Your task to perform on an android device: open app "Microsoft Outlook" (install if not already installed) Image 0: 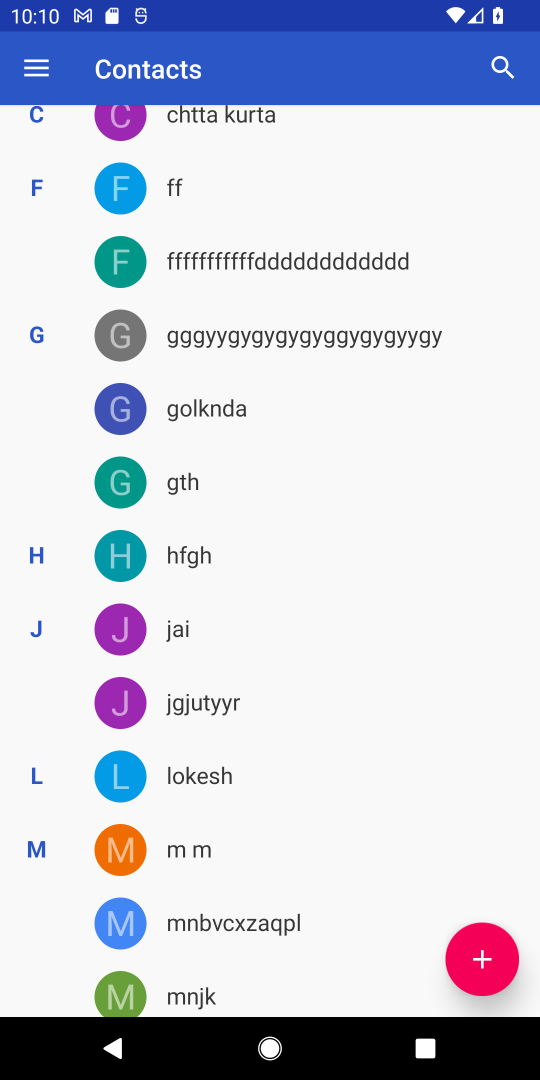
Step 0: press home button
Your task to perform on an android device: open app "Microsoft Outlook" (install if not already installed) Image 1: 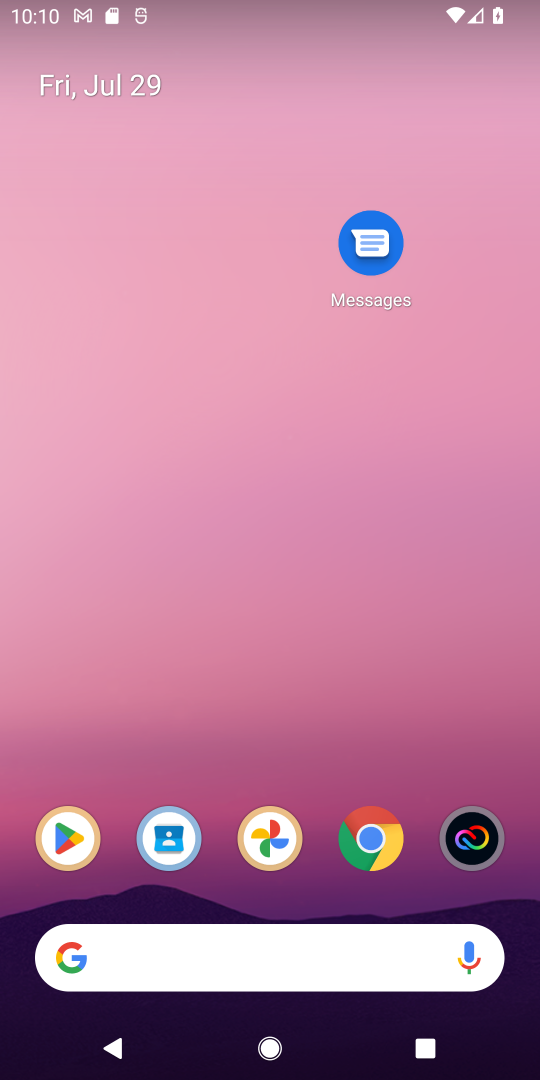
Step 1: click (81, 856)
Your task to perform on an android device: open app "Microsoft Outlook" (install if not already installed) Image 2: 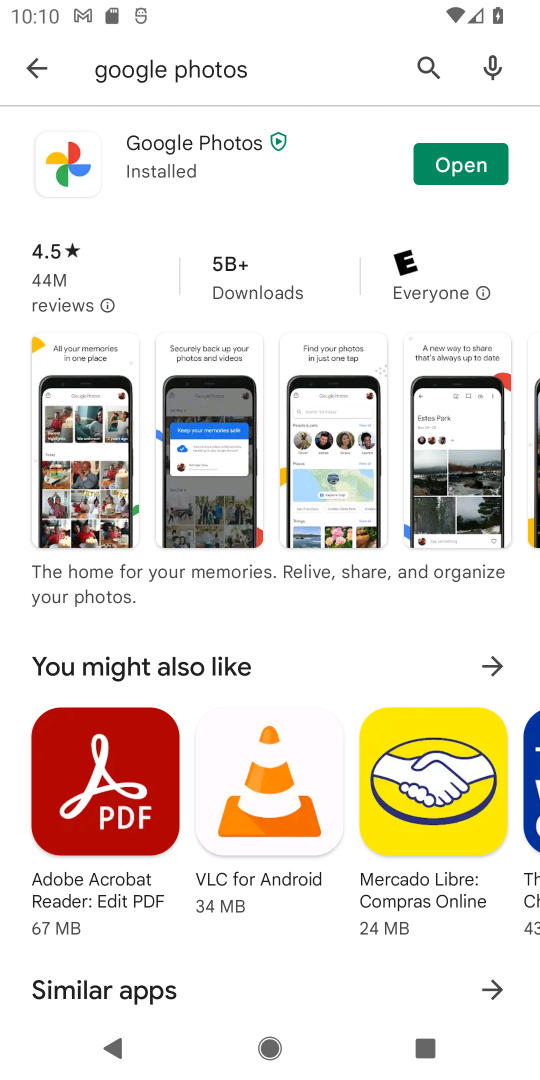
Step 2: click (265, 68)
Your task to perform on an android device: open app "Microsoft Outlook" (install if not already installed) Image 3: 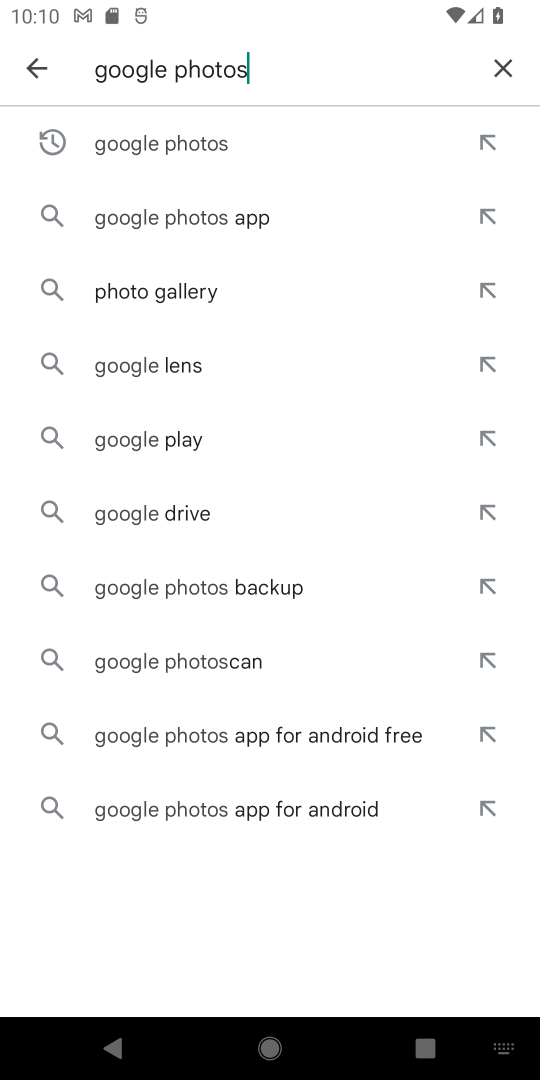
Step 3: click (488, 63)
Your task to perform on an android device: open app "Microsoft Outlook" (install if not already installed) Image 4: 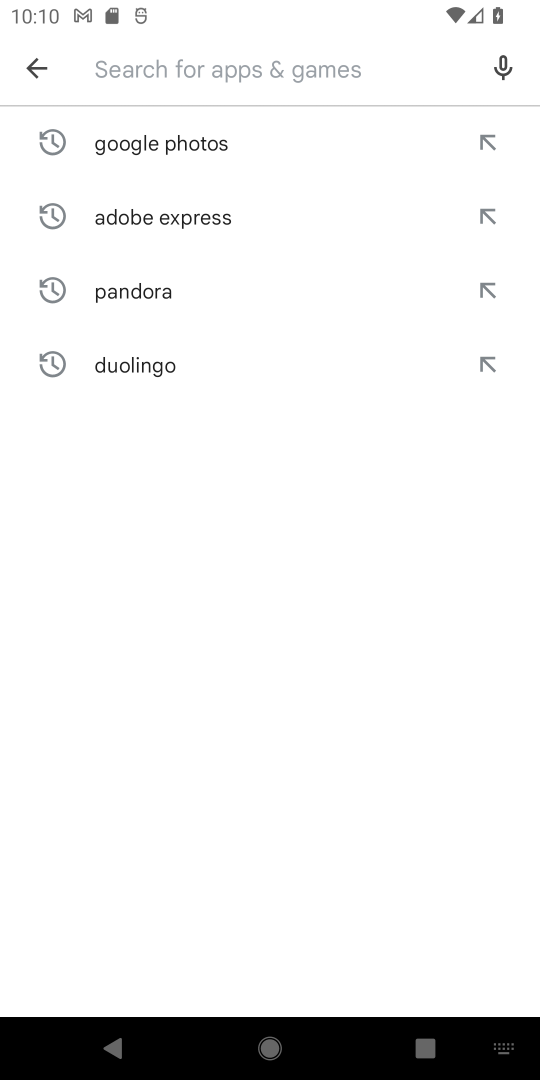
Step 4: type "MIcrosoft Outlook"
Your task to perform on an android device: open app "Microsoft Outlook" (install if not already installed) Image 5: 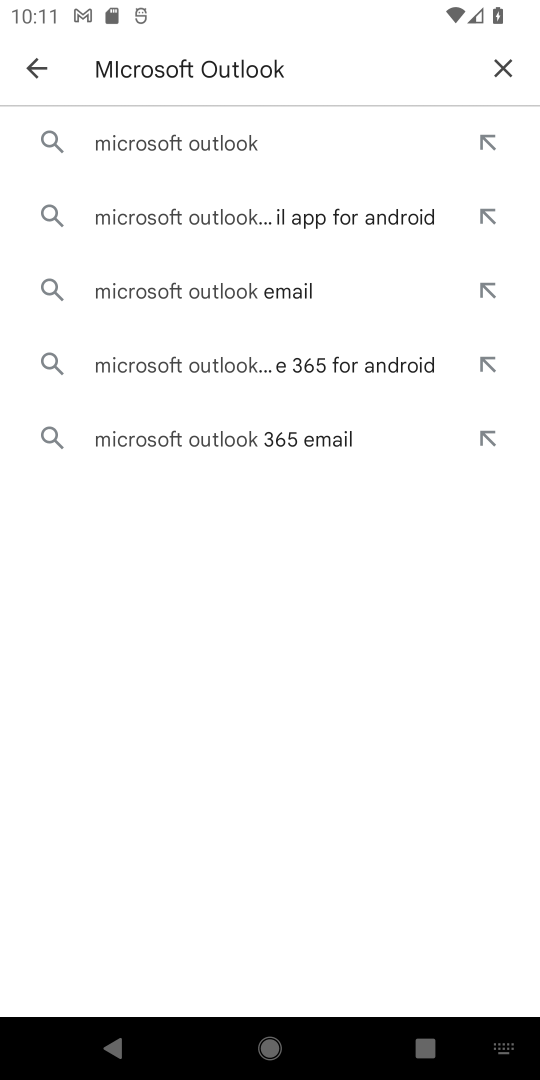
Step 5: click (229, 161)
Your task to perform on an android device: open app "Microsoft Outlook" (install if not already installed) Image 6: 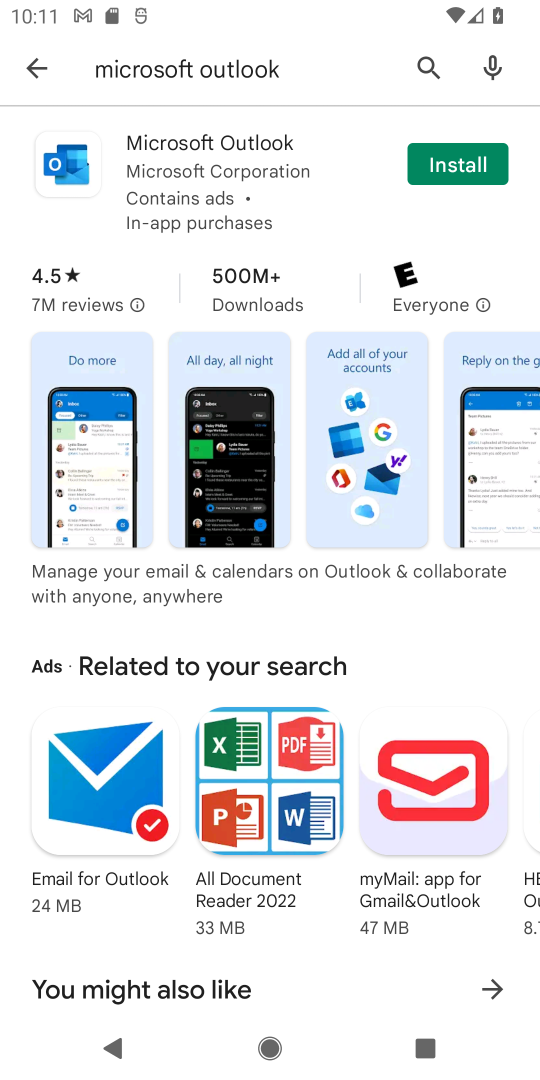
Step 6: click (447, 168)
Your task to perform on an android device: open app "Microsoft Outlook" (install if not already installed) Image 7: 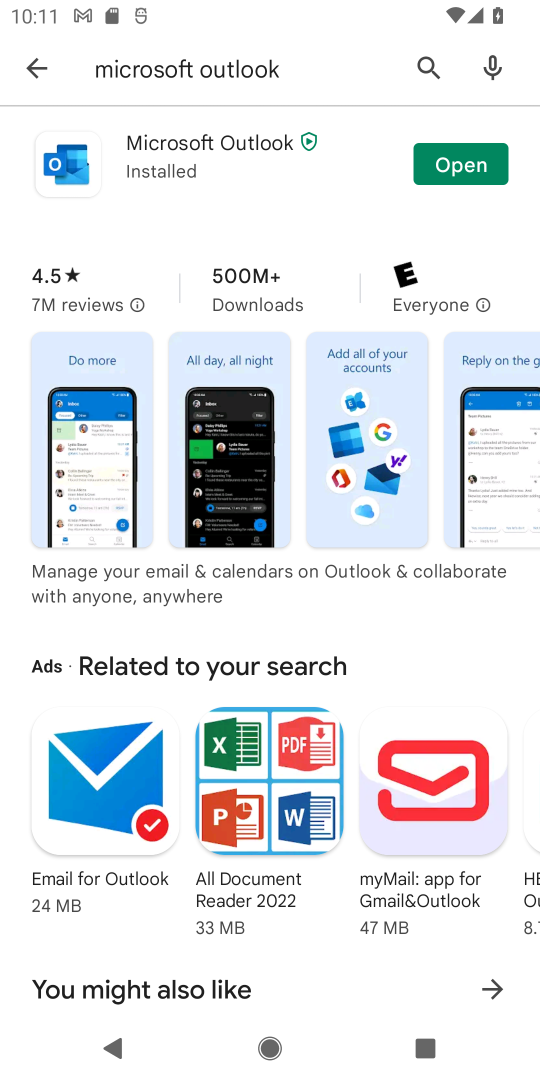
Step 7: click (469, 166)
Your task to perform on an android device: open app "Microsoft Outlook" (install if not already installed) Image 8: 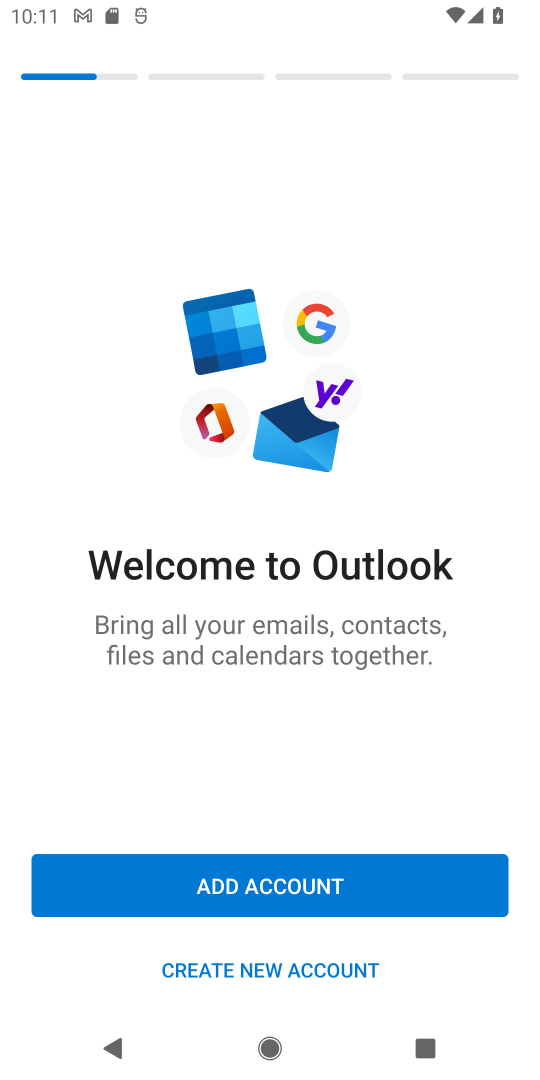
Step 8: task complete